Your task to perform on an android device: toggle translation in the chrome app Image 0: 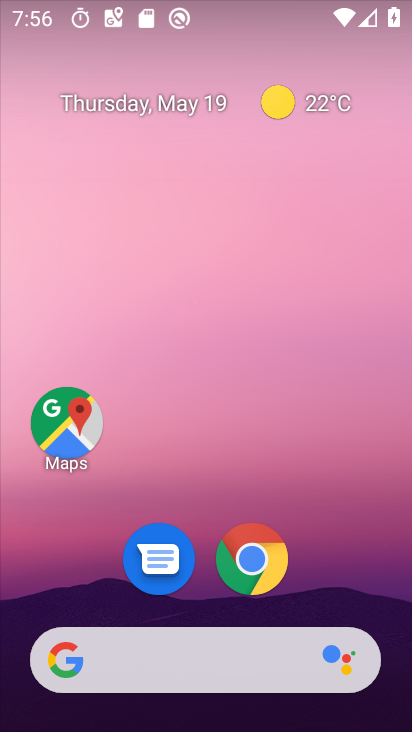
Step 0: click (259, 550)
Your task to perform on an android device: toggle translation in the chrome app Image 1: 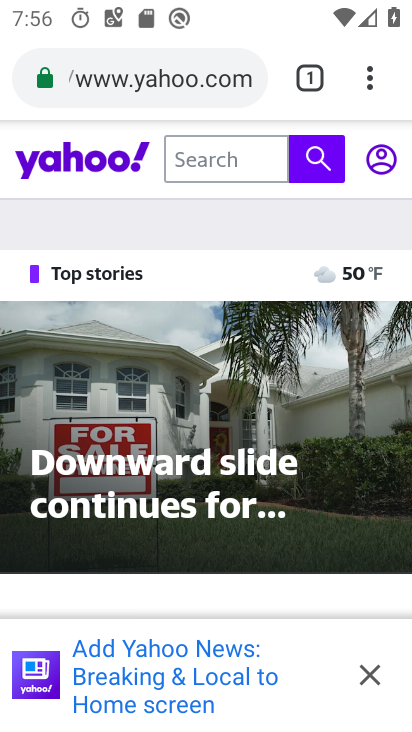
Step 1: click (374, 78)
Your task to perform on an android device: toggle translation in the chrome app Image 2: 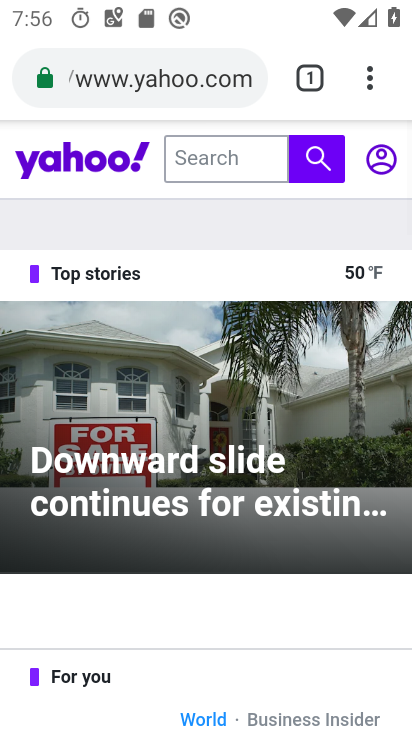
Step 2: click (363, 69)
Your task to perform on an android device: toggle translation in the chrome app Image 3: 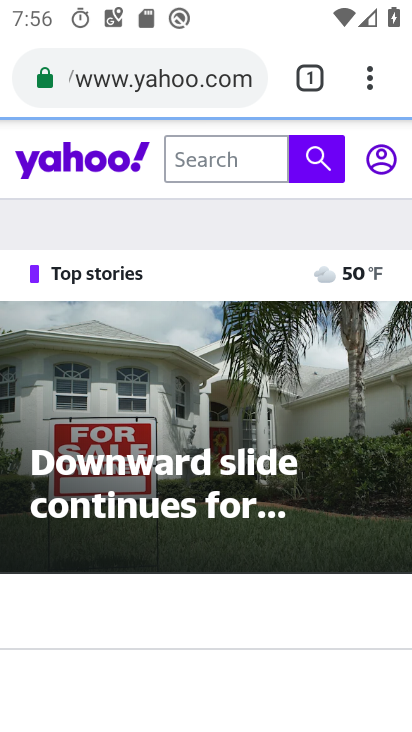
Step 3: click (363, 69)
Your task to perform on an android device: toggle translation in the chrome app Image 4: 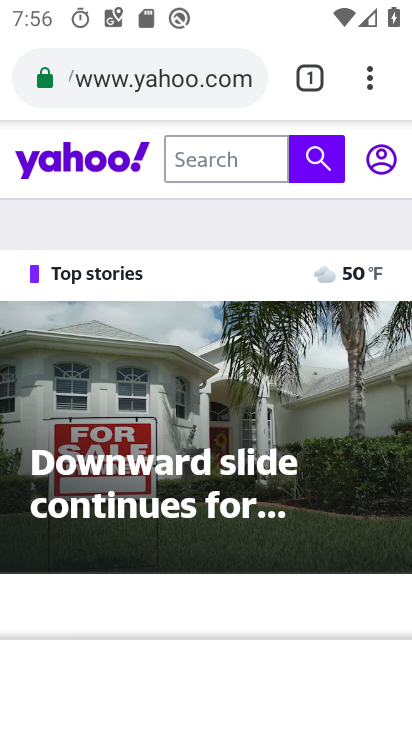
Step 4: click (364, 100)
Your task to perform on an android device: toggle translation in the chrome app Image 5: 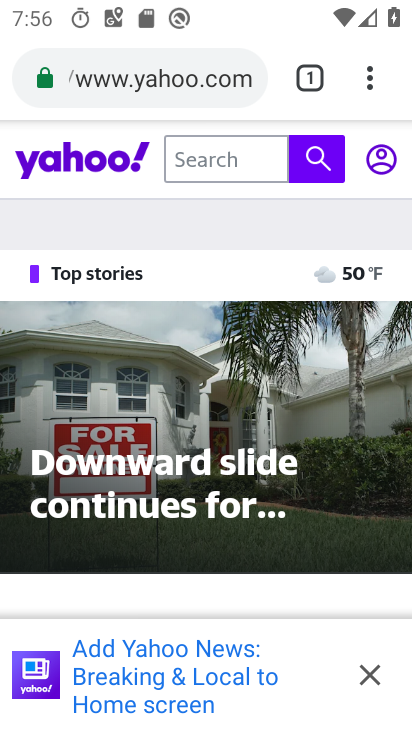
Step 5: click (400, 111)
Your task to perform on an android device: toggle translation in the chrome app Image 6: 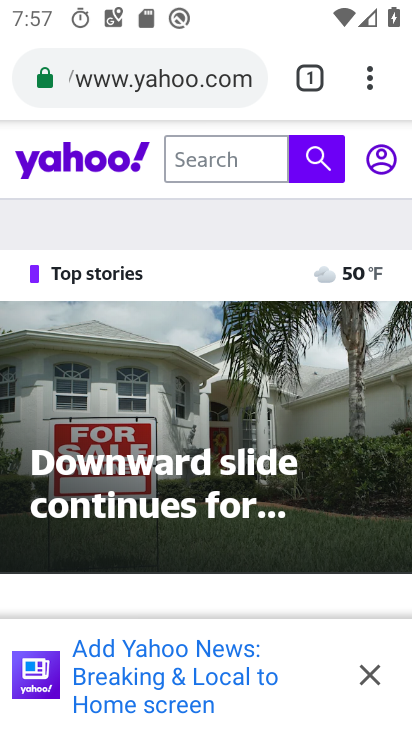
Step 6: click (379, 82)
Your task to perform on an android device: toggle translation in the chrome app Image 7: 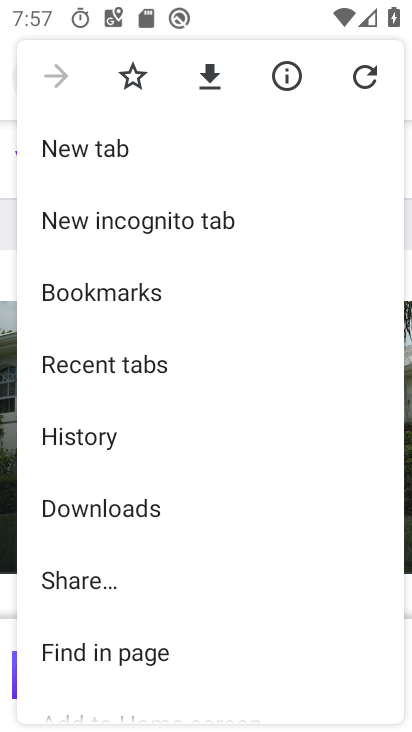
Step 7: drag from (232, 632) to (282, 238)
Your task to perform on an android device: toggle translation in the chrome app Image 8: 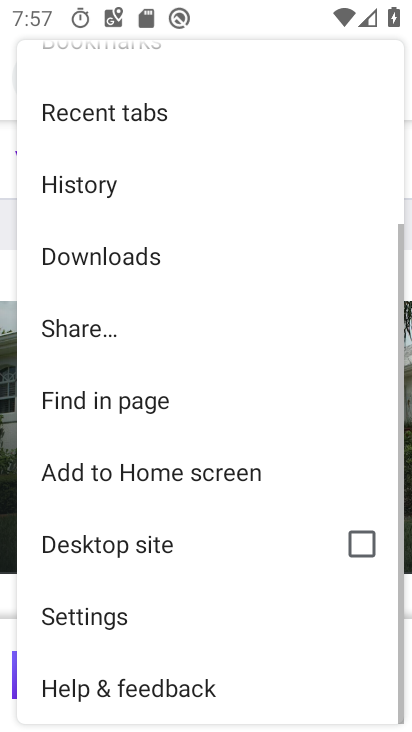
Step 8: click (156, 606)
Your task to perform on an android device: toggle translation in the chrome app Image 9: 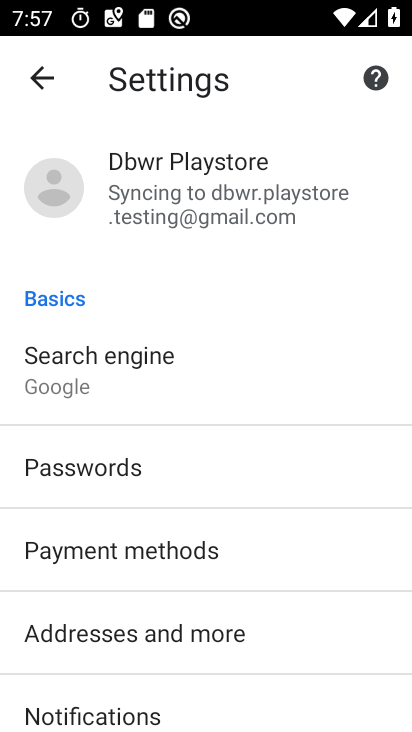
Step 9: drag from (148, 617) to (154, 240)
Your task to perform on an android device: toggle translation in the chrome app Image 10: 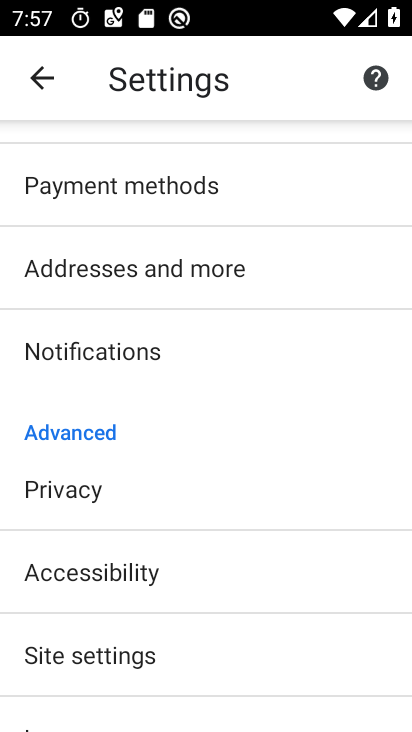
Step 10: drag from (128, 642) to (160, 272)
Your task to perform on an android device: toggle translation in the chrome app Image 11: 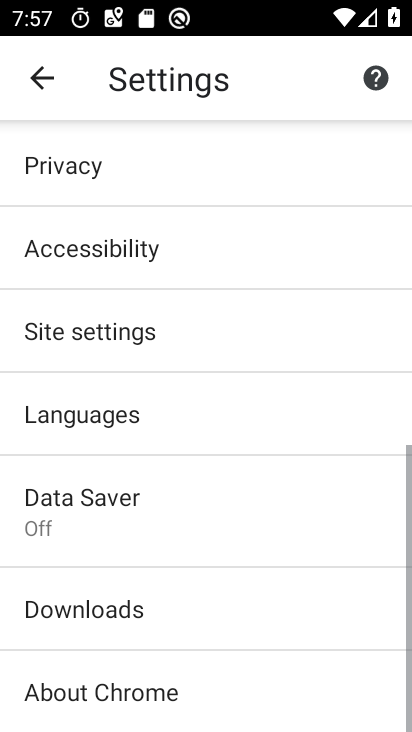
Step 11: click (92, 409)
Your task to perform on an android device: toggle translation in the chrome app Image 12: 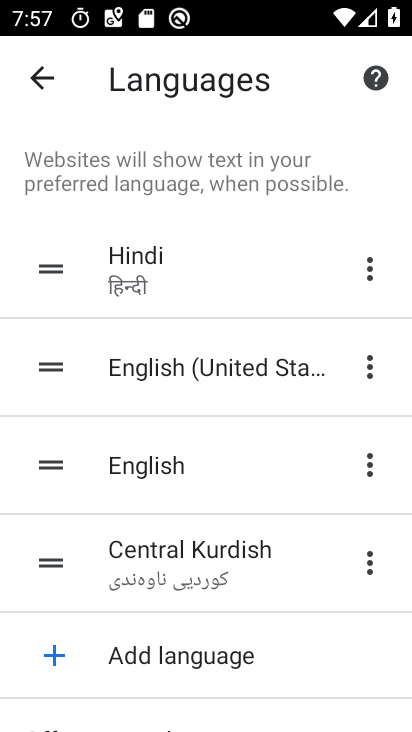
Step 12: drag from (351, 648) to (341, 281)
Your task to perform on an android device: toggle translation in the chrome app Image 13: 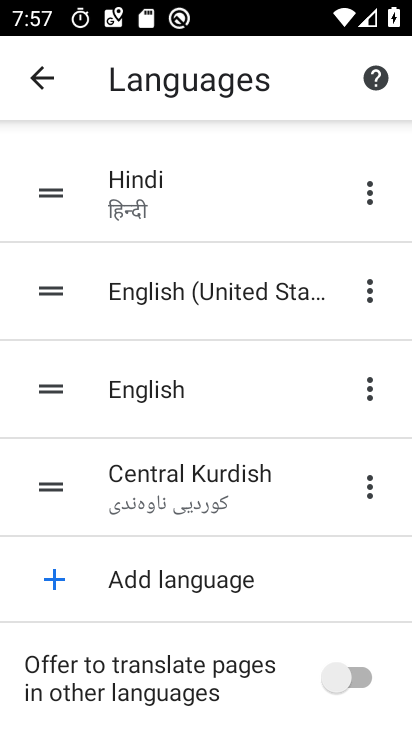
Step 13: click (349, 694)
Your task to perform on an android device: toggle translation in the chrome app Image 14: 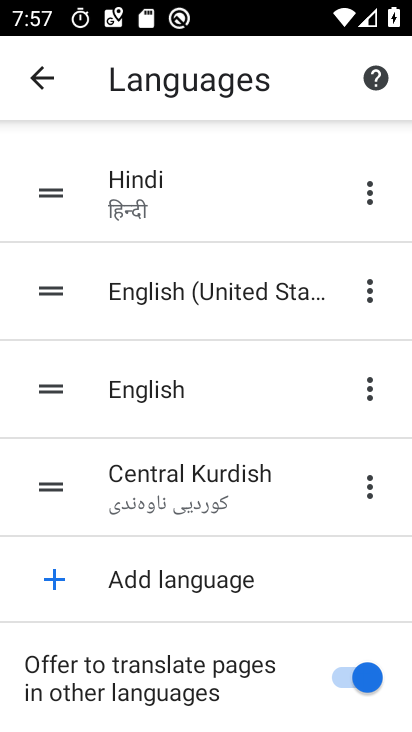
Step 14: task complete